Your task to perform on an android device: clear history in the chrome app Image 0: 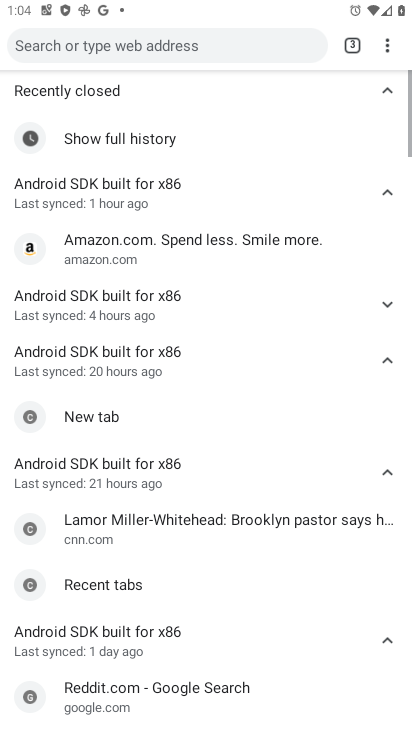
Step 0: click (316, 727)
Your task to perform on an android device: clear history in the chrome app Image 1: 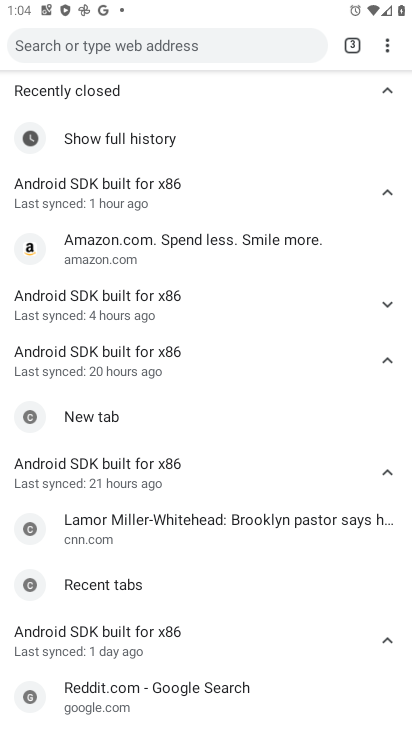
Step 1: click (391, 43)
Your task to perform on an android device: clear history in the chrome app Image 2: 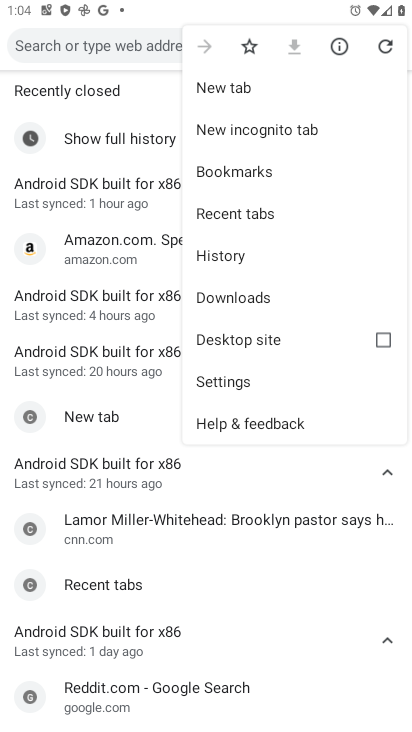
Step 2: click (245, 253)
Your task to perform on an android device: clear history in the chrome app Image 3: 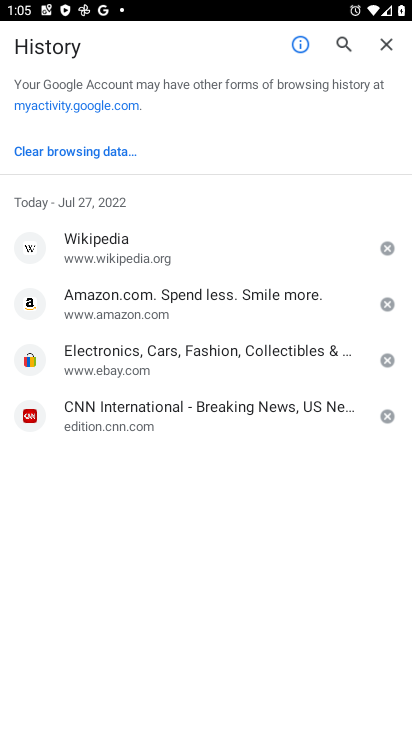
Step 3: click (87, 153)
Your task to perform on an android device: clear history in the chrome app Image 4: 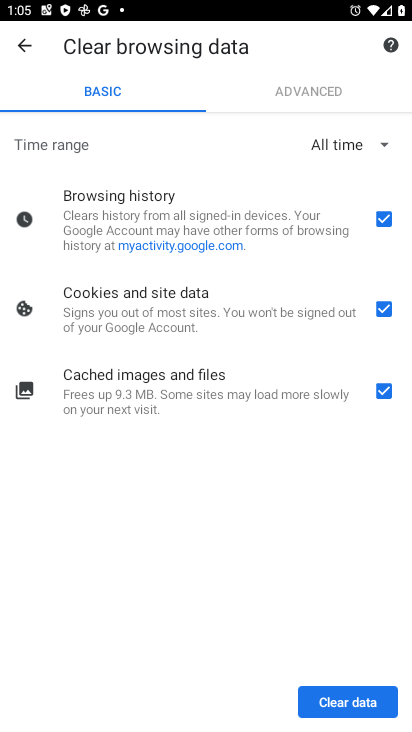
Step 4: click (367, 711)
Your task to perform on an android device: clear history in the chrome app Image 5: 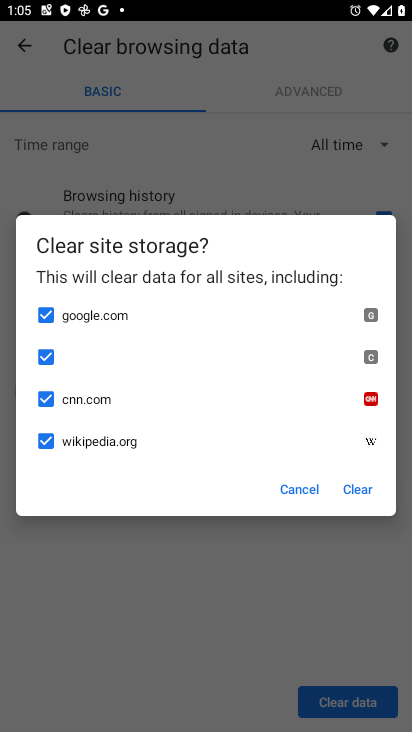
Step 5: click (371, 490)
Your task to perform on an android device: clear history in the chrome app Image 6: 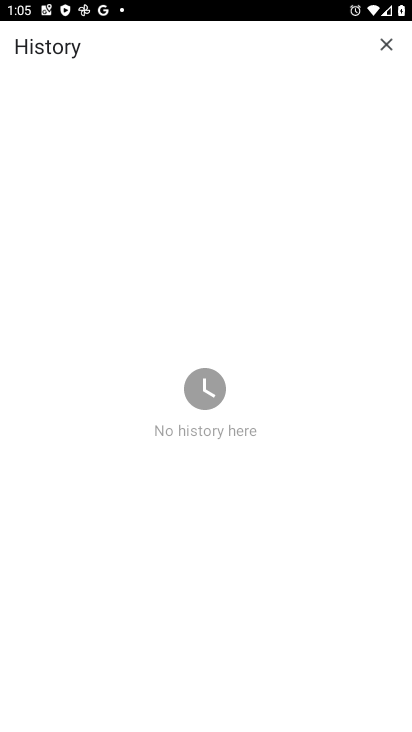
Step 6: task complete